Your task to perform on an android device: open wifi settings Image 0: 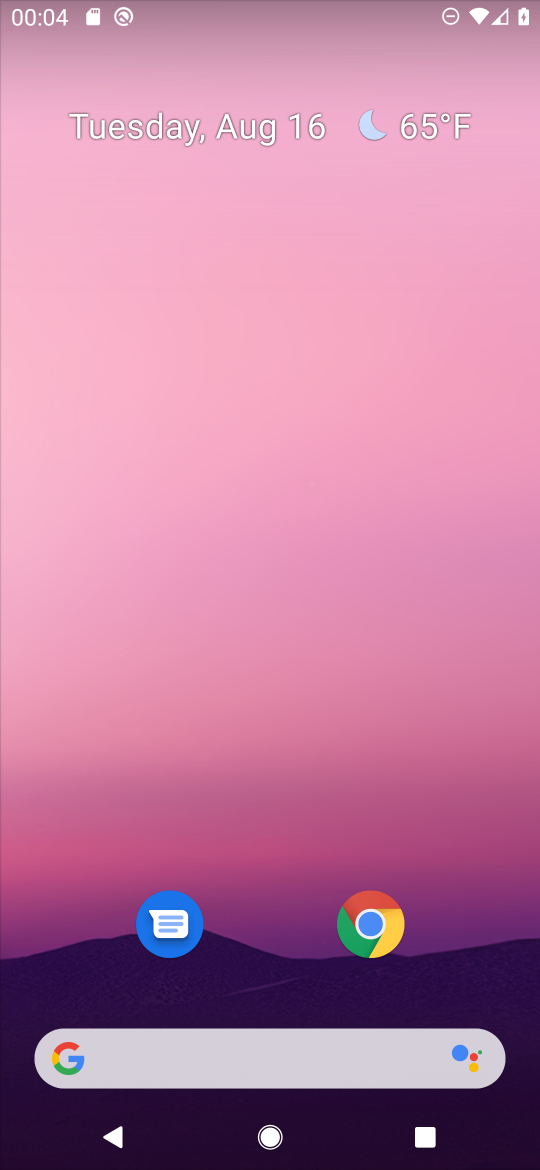
Step 0: drag from (397, 14) to (313, 959)
Your task to perform on an android device: open wifi settings Image 1: 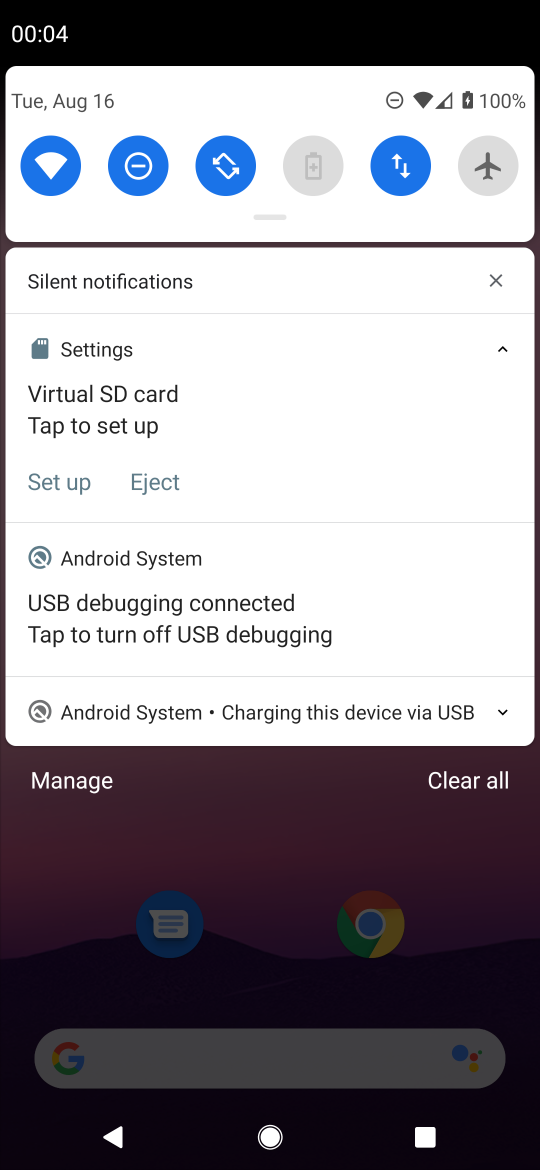
Step 1: click (44, 162)
Your task to perform on an android device: open wifi settings Image 2: 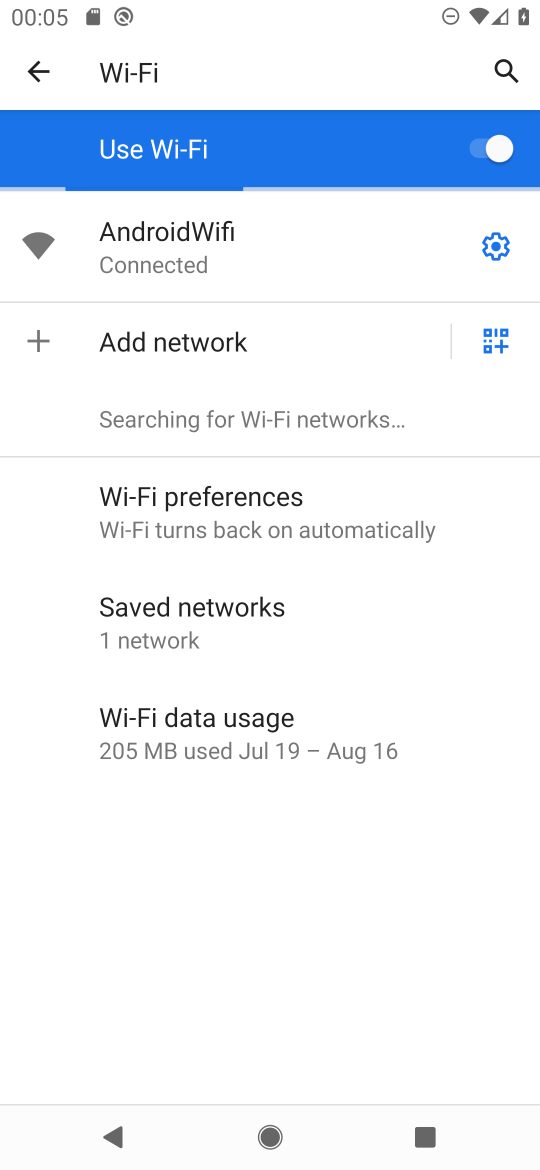
Step 2: task complete